Your task to perform on an android device: Open Reddit.com Image 0: 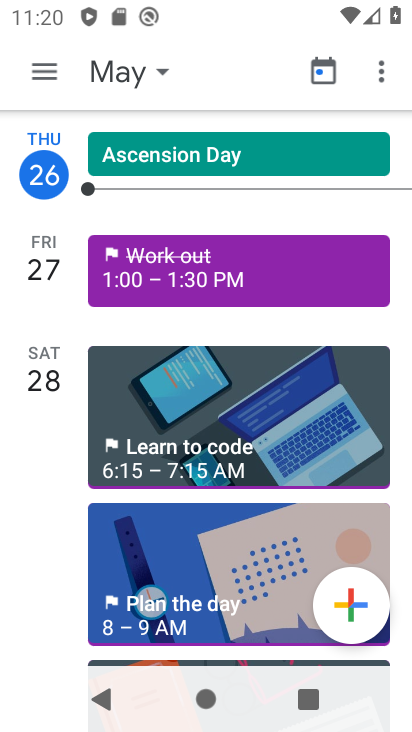
Step 0: press home button
Your task to perform on an android device: Open Reddit.com Image 1: 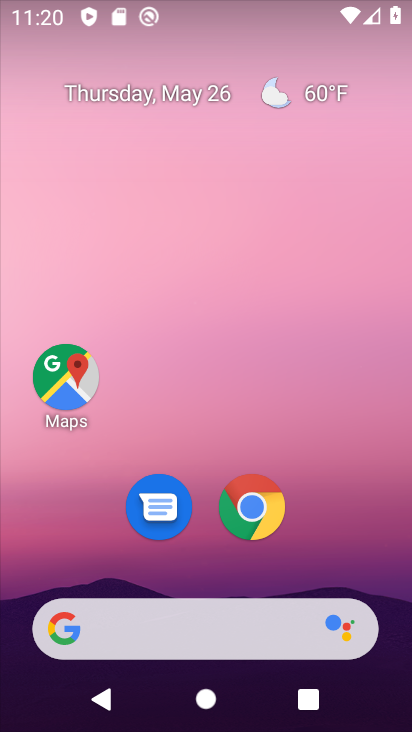
Step 1: click (236, 503)
Your task to perform on an android device: Open Reddit.com Image 2: 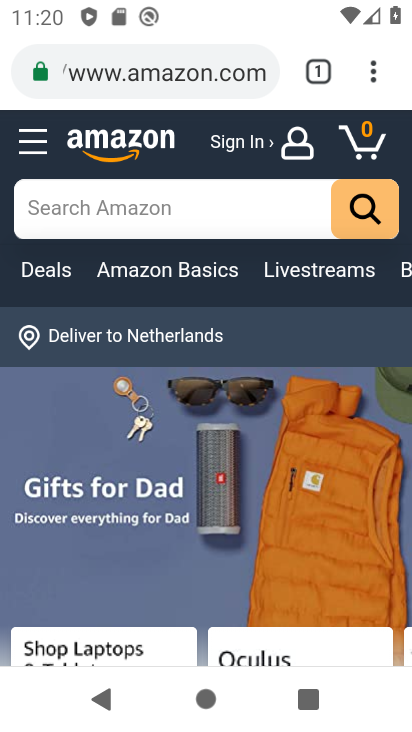
Step 2: click (231, 75)
Your task to perform on an android device: Open Reddit.com Image 3: 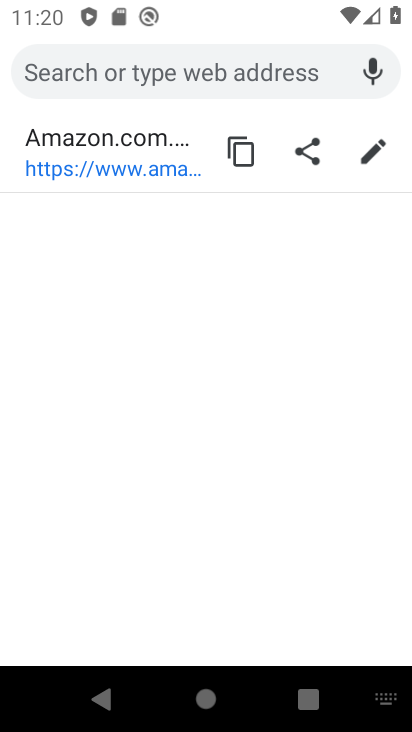
Step 3: type "reddit"
Your task to perform on an android device: Open Reddit.com Image 4: 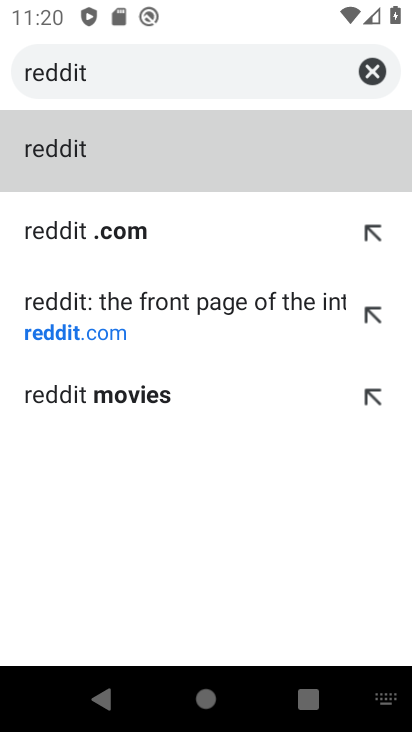
Step 4: click (128, 307)
Your task to perform on an android device: Open Reddit.com Image 5: 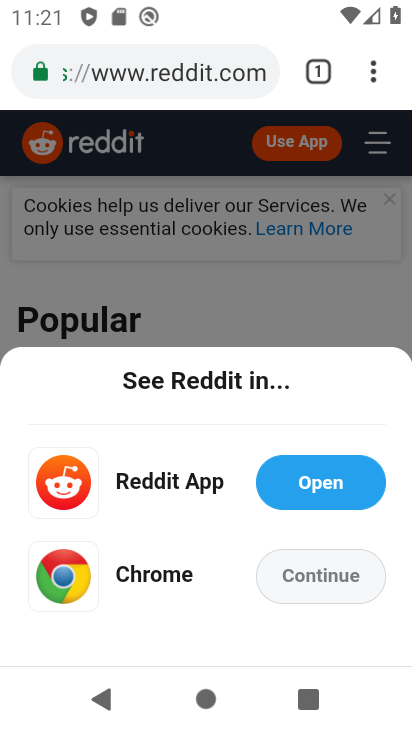
Step 5: click (327, 593)
Your task to perform on an android device: Open Reddit.com Image 6: 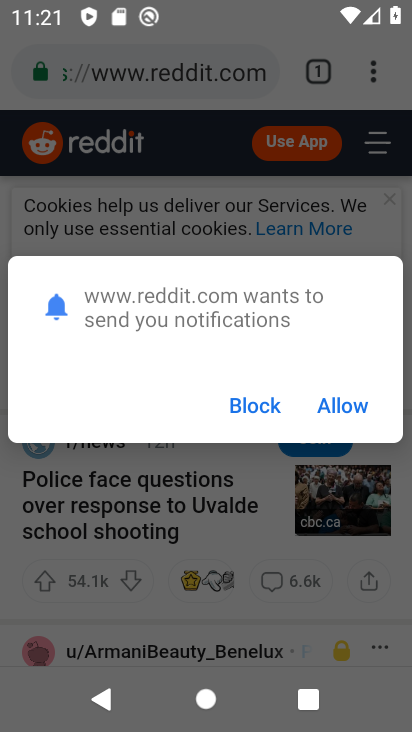
Step 6: click (258, 407)
Your task to perform on an android device: Open Reddit.com Image 7: 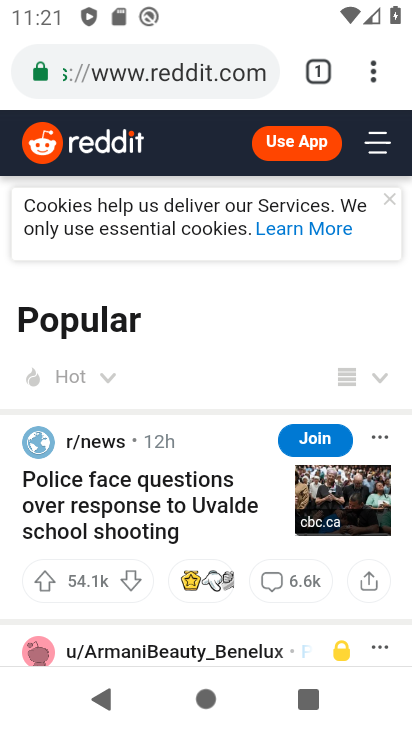
Step 7: task complete